Your task to perform on an android device: delete browsing data in the chrome app Image 0: 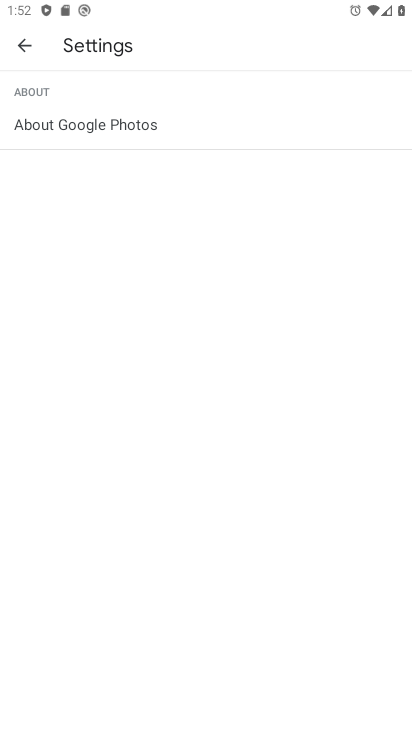
Step 0: press home button
Your task to perform on an android device: delete browsing data in the chrome app Image 1: 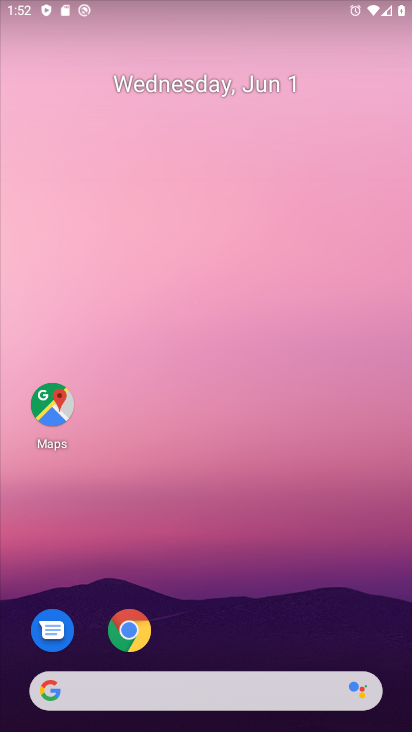
Step 1: drag from (297, 691) to (299, 45)
Your task to perform on an android device: delete browsing data in the chrome app Image 2: 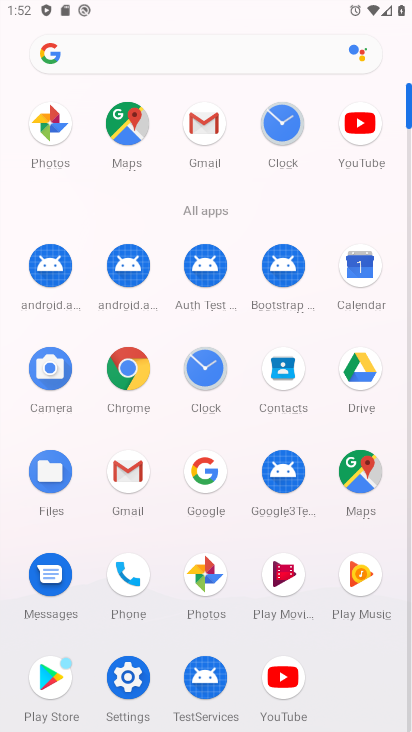
Step 2: click (135, 371)
Your task to perform on an android device: delete browsing data in the chrome app Image 3: 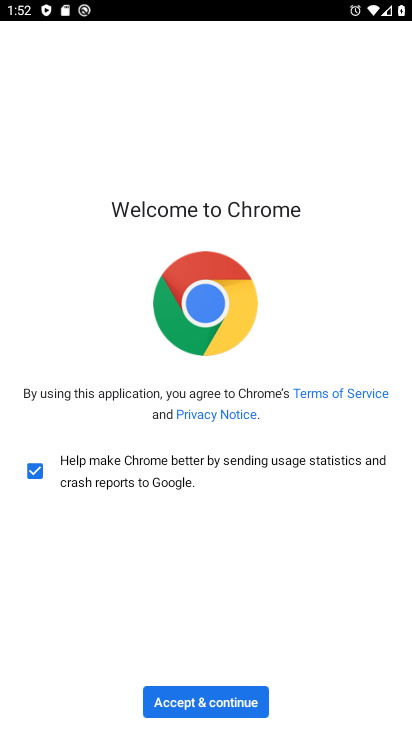
Step 3: click (226, 695)
Your task to perform on an android device: delete browsing data in the chrome app Image 4: 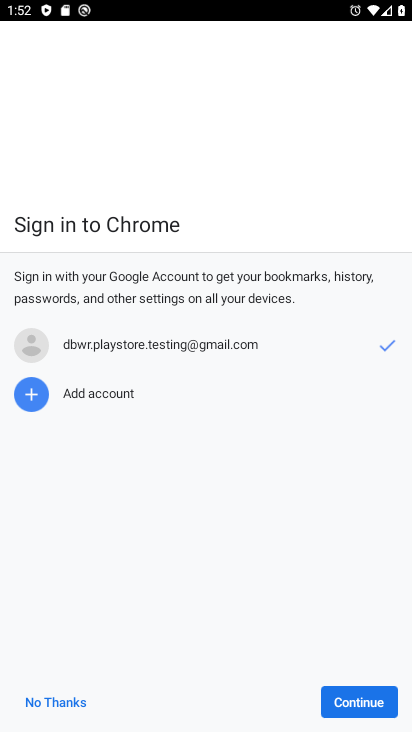
Step 4: click (51, 702)
Your task to perform on an android device: delete browsing data in the chrome app Image 5: 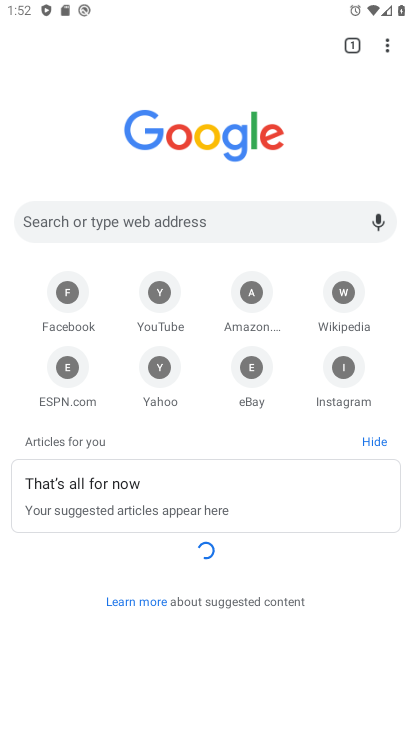
Step 5: task complete